Your task to perform on an android device: Go to Reddit.com Image 0: 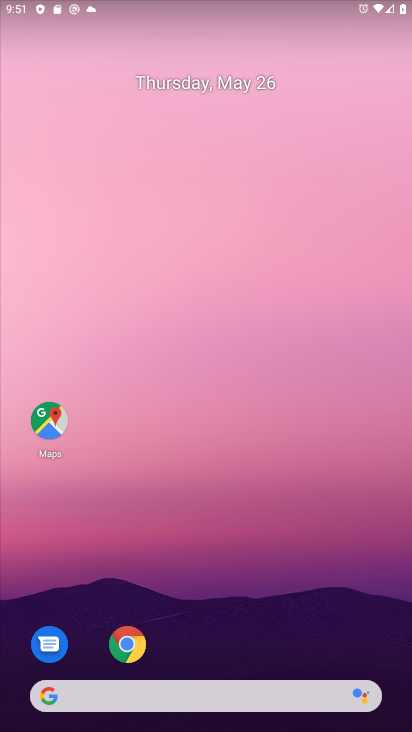
Step 0: click (138, 646)
Your task to perform on an android device: Go to Reddit.com Image 1: 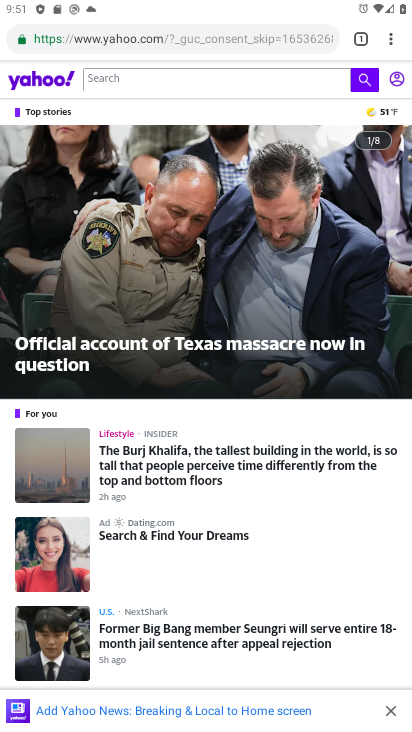
Step 1: click (351, 39)
Your task to perform on an android device: Go to Reddit.com Image 2: 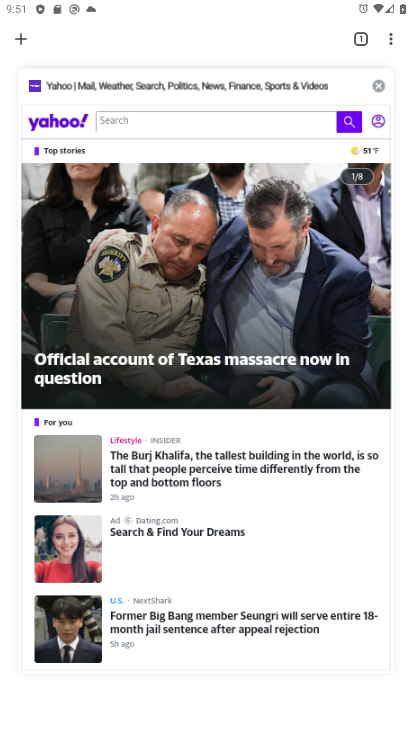
Step 2: click (26, 41)
Your task to perform on an android device: Go to Reddit.com Image 3: 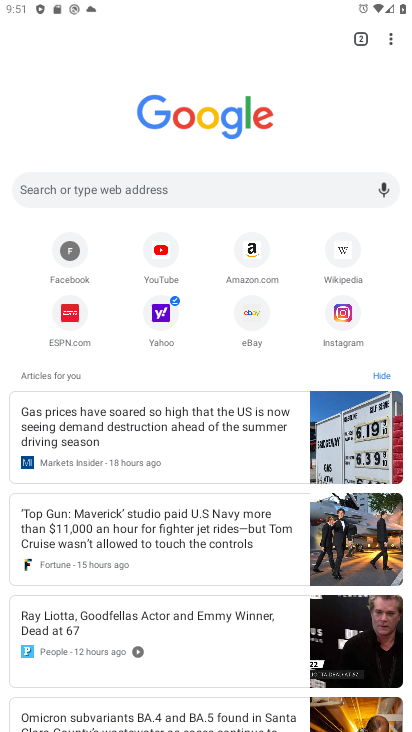
Step 3: click (141, 202)
Your task to perform on an android device: Go to Reddit.com Image 4: 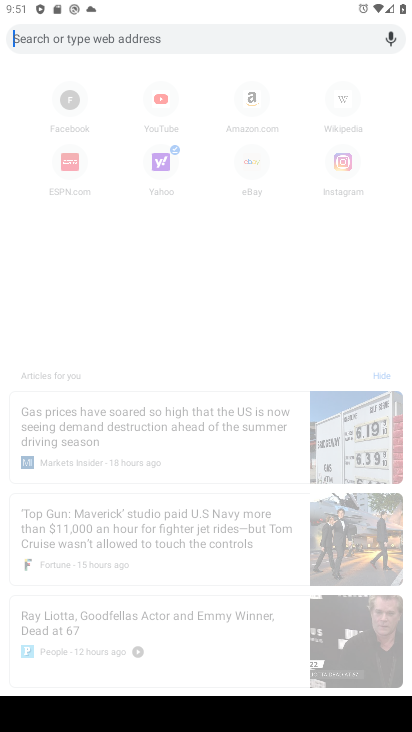
Step 4: type "Reddit.com"
Your task to perform on an android device: Go to Reddit.com Image 5: 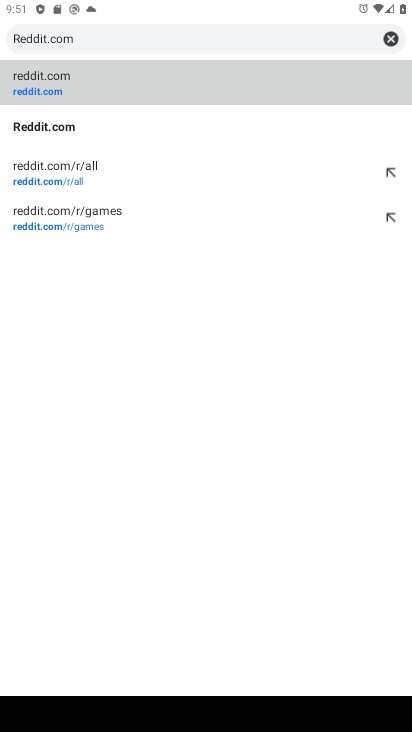
Step 5: click (100, 99)
Your task to perform on an android device: Go to Reddit.com Image 6: 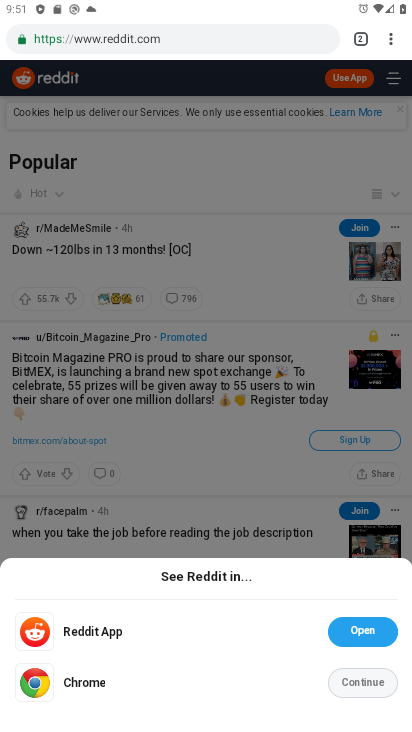
Step 6: click (366, 677)
Your task to perform on an android device: Go to Reddit.com Image 7: 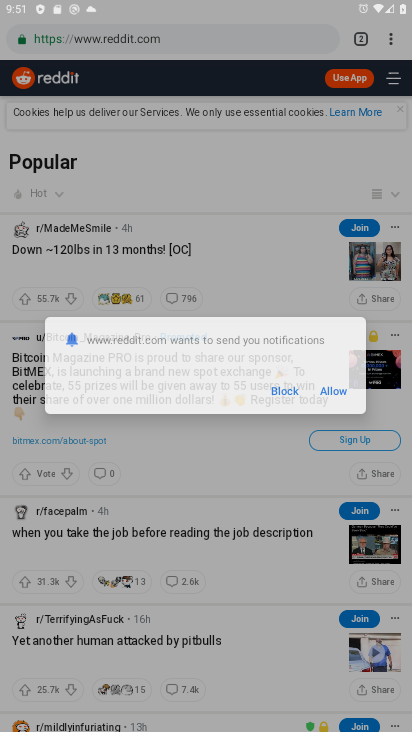
Step 7: task complete